Your task to perform on an android device: Open the stopwatch Image 0: 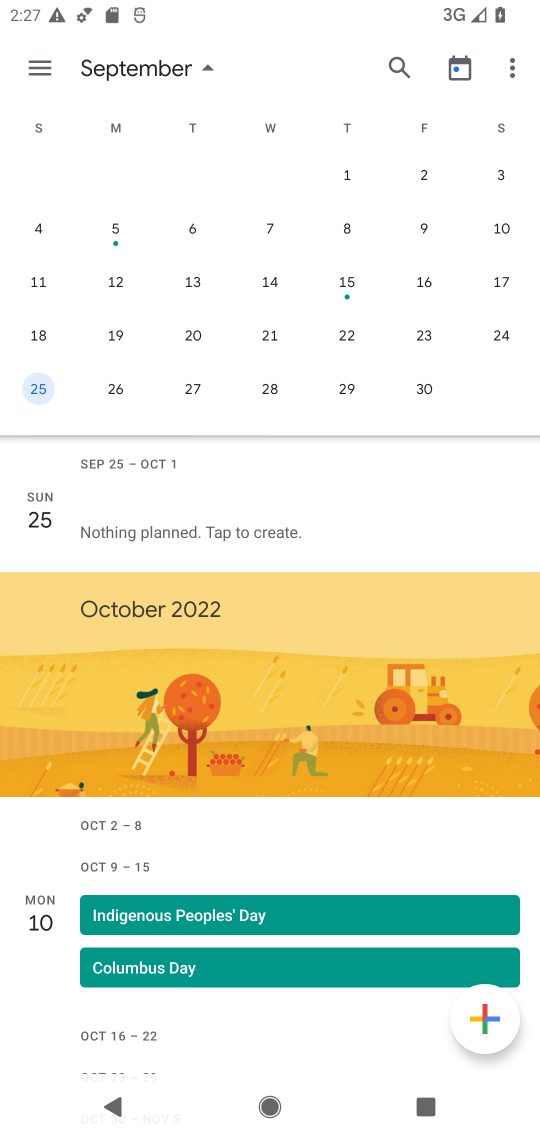
Step 0: press home button
Your task to perform on an android device: Open the stopwatch Image 1: 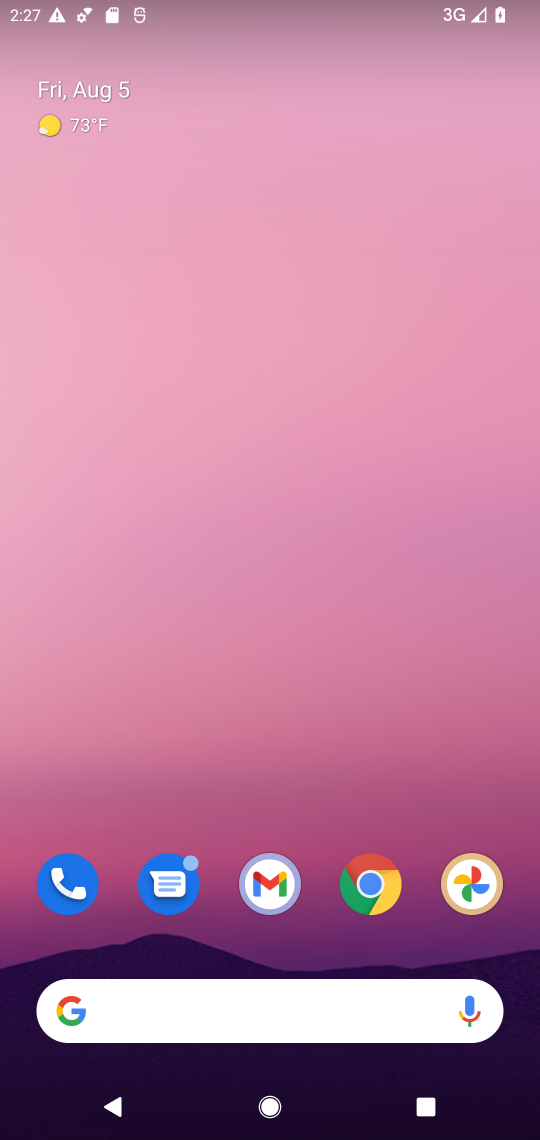
Step 1: drag from (474, 963) to (141, 132)
Your task to perform on an android device: Open the stopwatch Image 2: 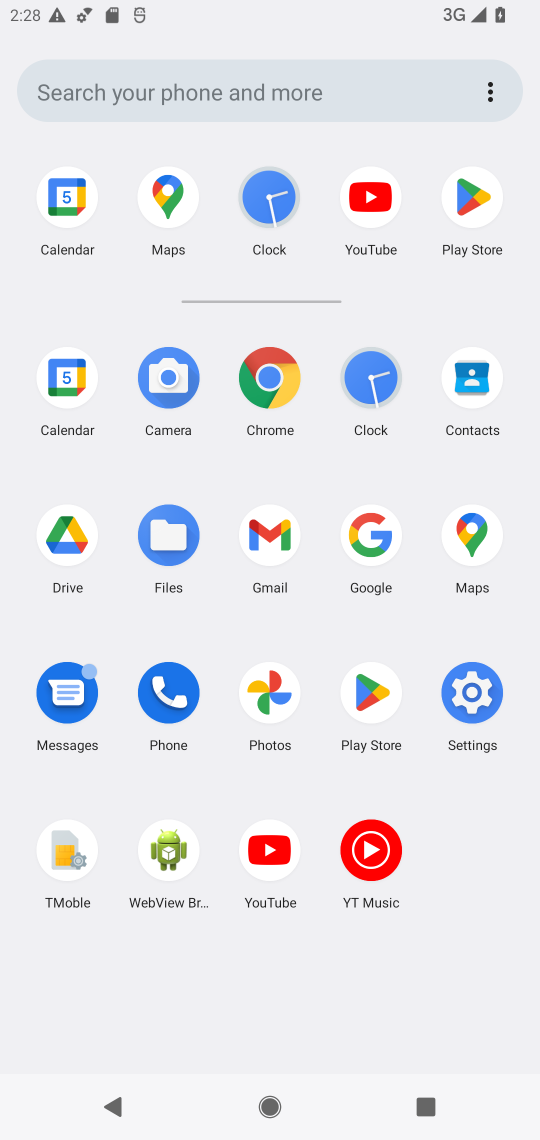
Step 2: click (379, 381)
Your task to perform on an android device: Open the stopwatch Image 3: 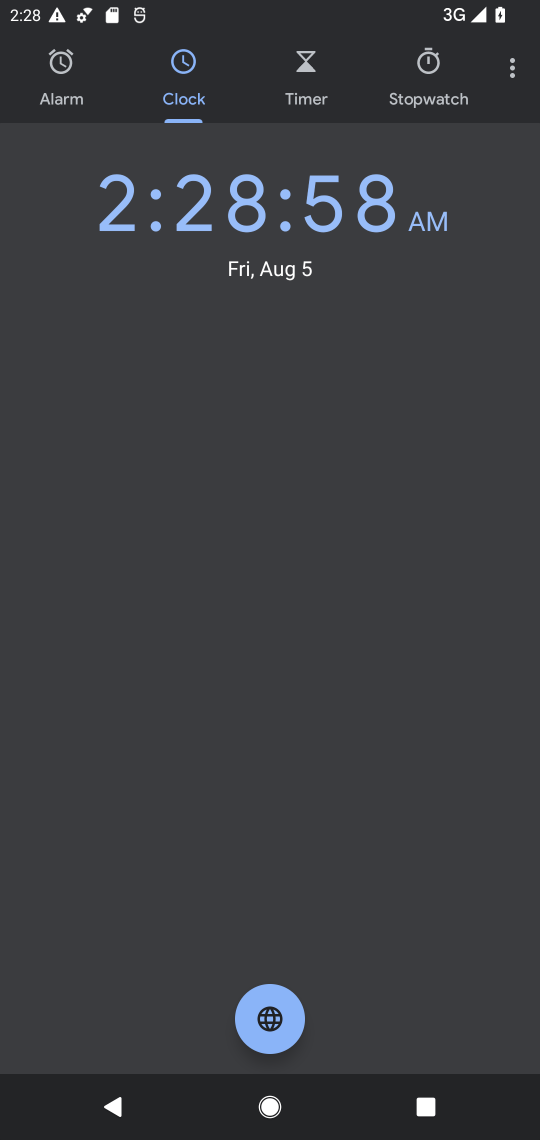
Step 3: click (427, 66)
Your task to perform on an android device: Open the stopwatch Image 4: 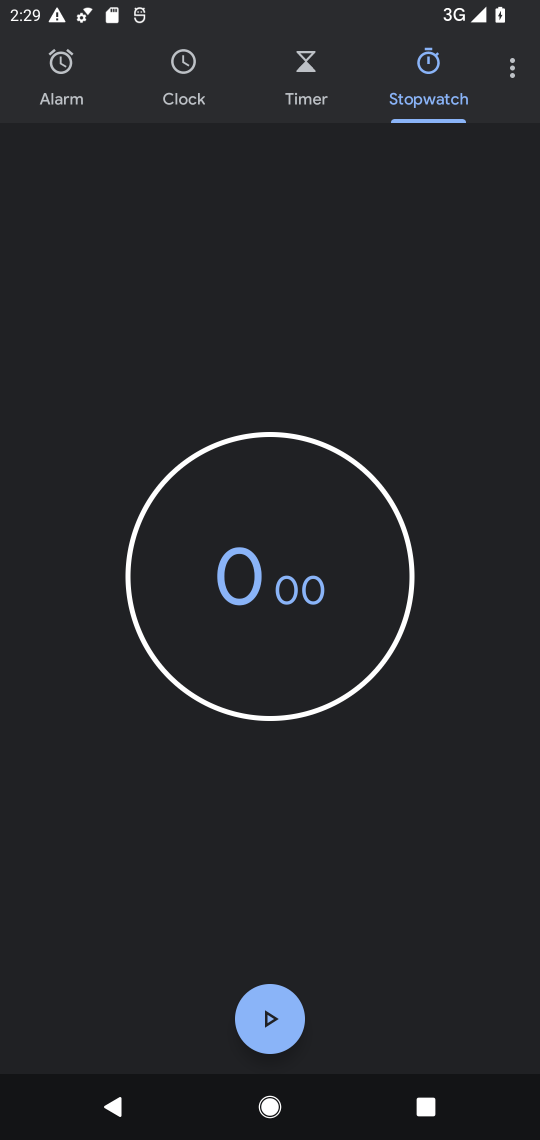
Step 4: task complete